Your task to perform on an android device: open a bookmark in the chrome app Image 0: 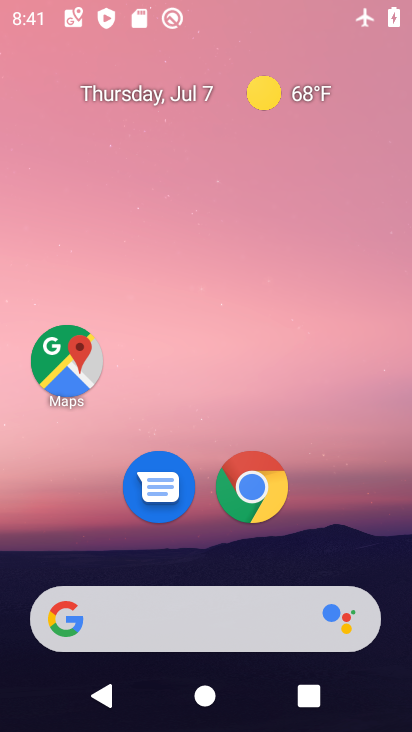
Step 0: drag from (208, 592) to (162, 65)
Your task to perform on an android device: open a bookmark in the chrome app Image 1: 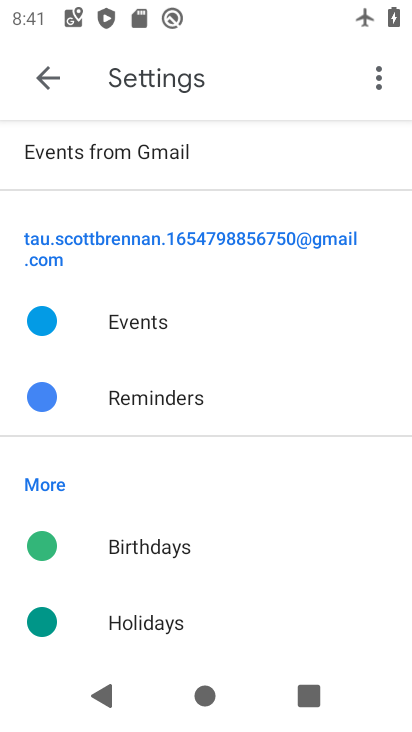
Step 1: press home button
Your task to perform on an android device: open a bookmark in the chrome app Image 2: 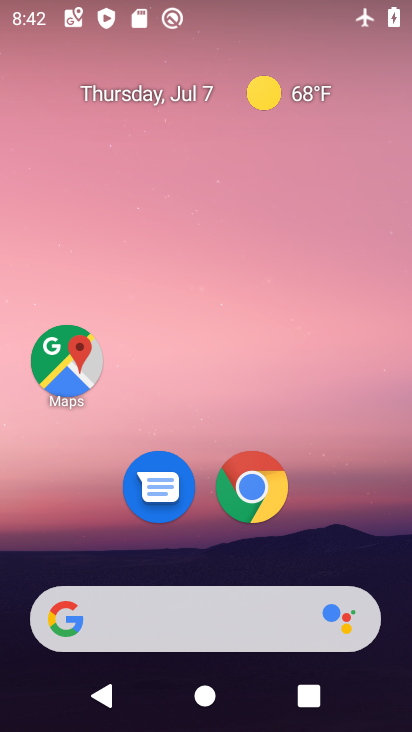
Step 2: click (241, 485)
Your task to perform on an android device: open a bookmark in the chrome app Image 3: 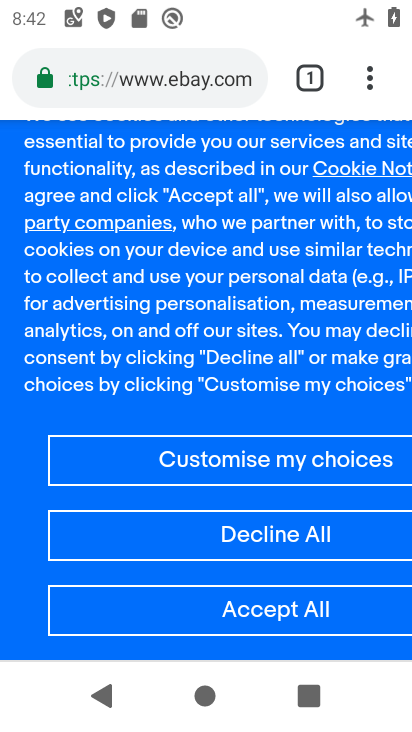
Step 3: click (370, 93)
Your task to perform on an android device: open a bookmark in the chrome app Image 4: 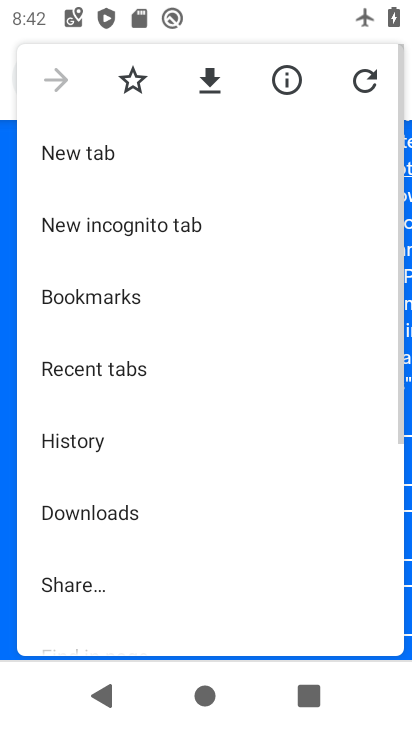
Step 4: click (106, 288)
Your task to perform on an android device: open a bookmark in the chrome app Image 5: 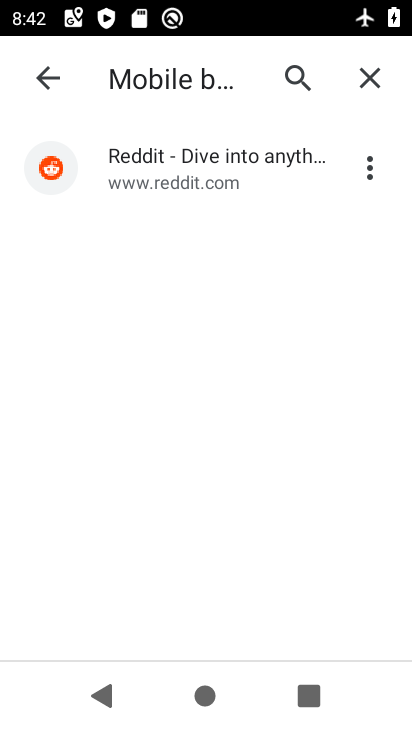
Step 5: task complete